Your task to perform on an android device: Open Youtube and go to the subscriptions tab Image 0: 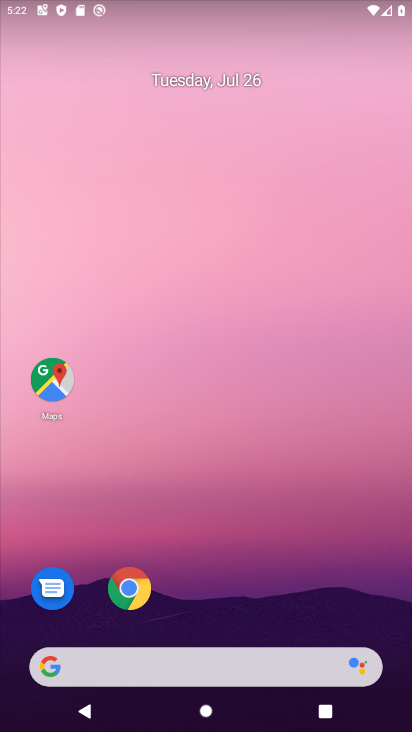
Step 0: drag from (235, 603) to (235, 56)
Your task to perform on an android device: Open Youtube and go to the subscriptions tab Image 1: 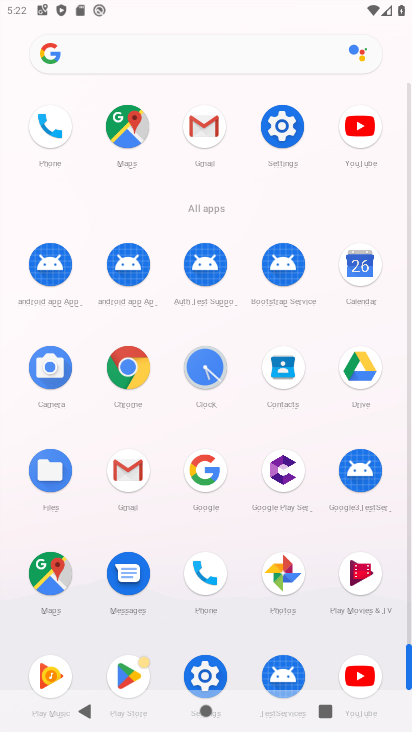
Step 1: drag from (217, 467) to (246, 126)
Your task to perform on an android device: Open Youtube and go to the subscriptions tab Image 2: 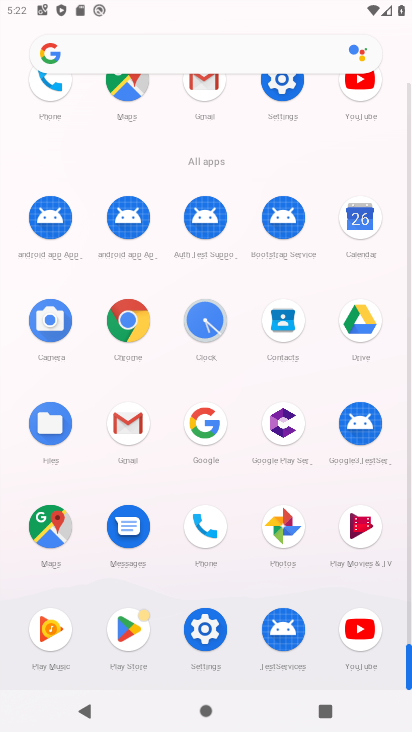
Step 2: click (371, 624)
Your task to perform on an android device: Open Youtube and go to the subscriptions tab Image 3: 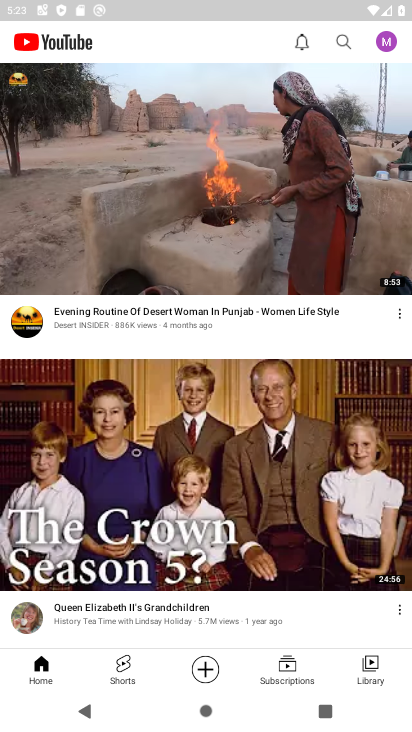
Step 3: click (291, 675)
Your task to perform on an android device: Open Youtube and go to the subscriptions tab Image 4: 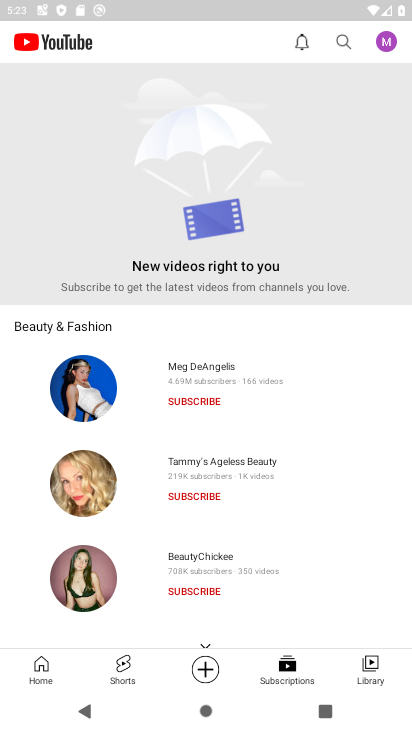
Step 4: task complete